Your task to perform on an android device: Go to display settings Image 0: 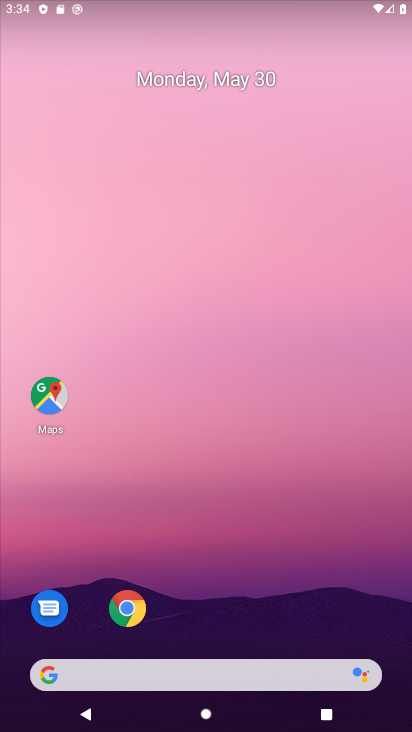
Step 0: press home button
Your task to perform on an android device: Go to display settings Image 1: 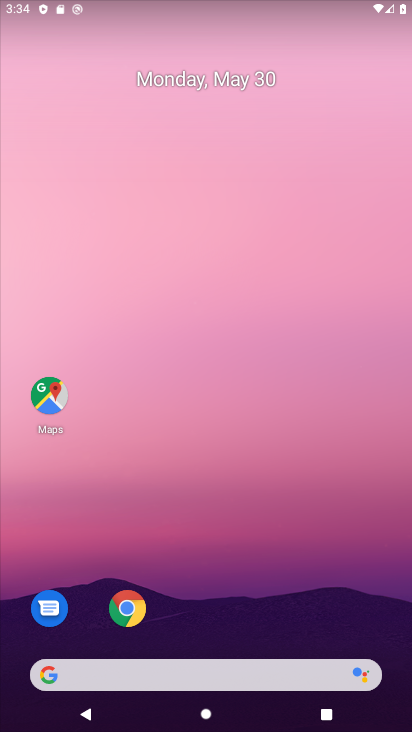
Step 1: drag from (175, 670) to (297, 134)
Your task to perform on an android device: Go to display settings Image 2: 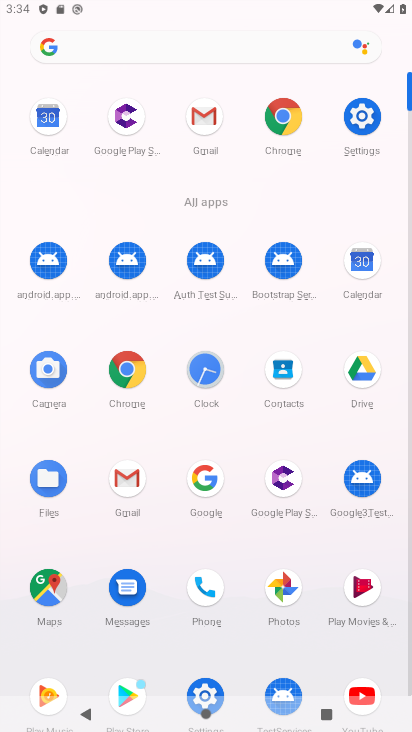
Step 2: drag from (200, 549) to (246, 272)
Your task to perform on an android device: Go to display settings Image 3: 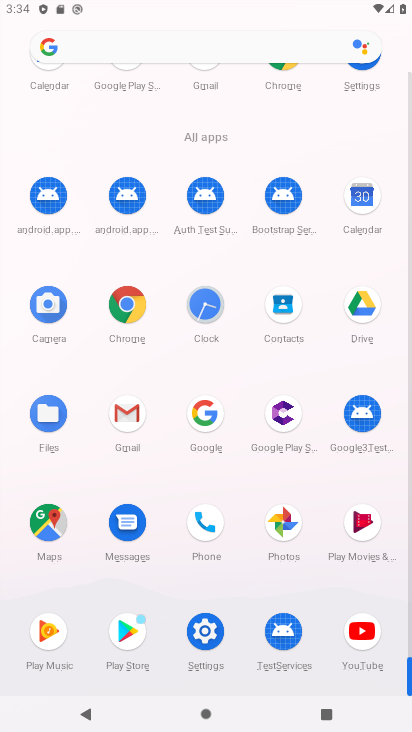
Step 3: click (217, 621)
Your task to perform on an android device: Go to display settings Image 4: 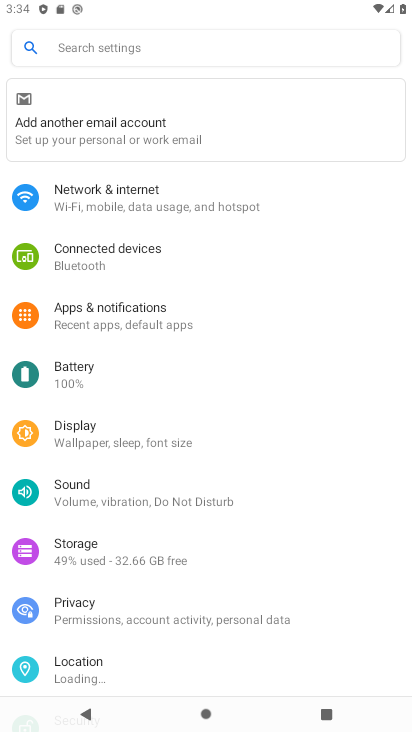
Step 4: click (110, 445)
Your task to perform on an android device: Go to display settings Image 5: 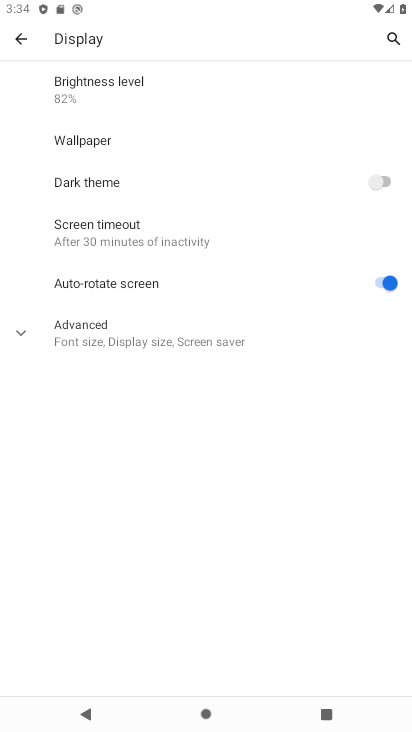
Step 5: task complete